Your task to perform on an android device: Open calendar and show me the third week of next month Image 0: 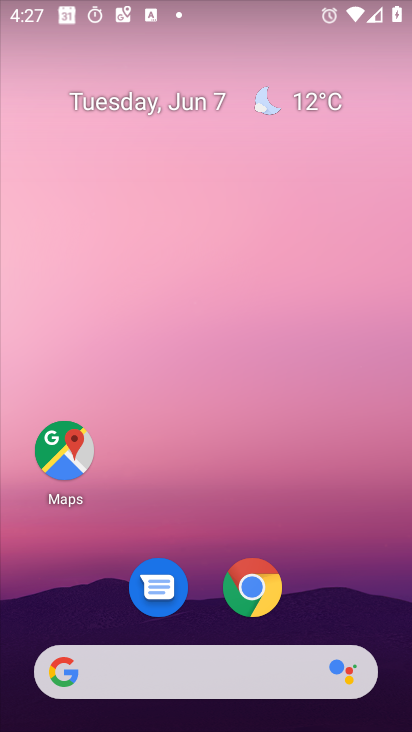
Step 0: drag from (240, 668) to (252, 117)
Your task to perform on an android device: Open calendar and show me the third week of next month Image 1: 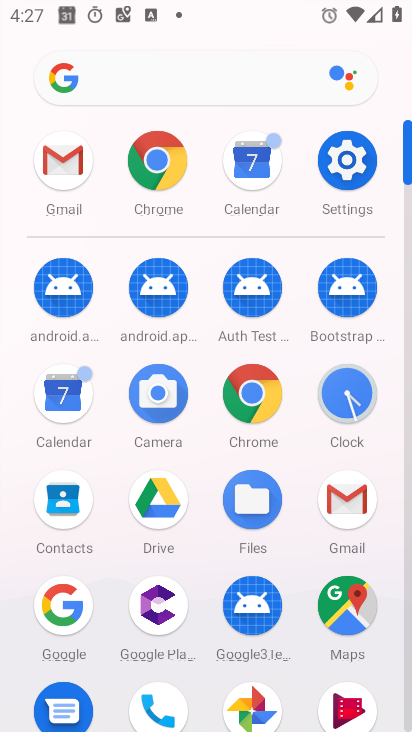
Step 1: click (67, 403)
Your task to perform on an android device: Open calendar and show me the third week of next month Image 2: 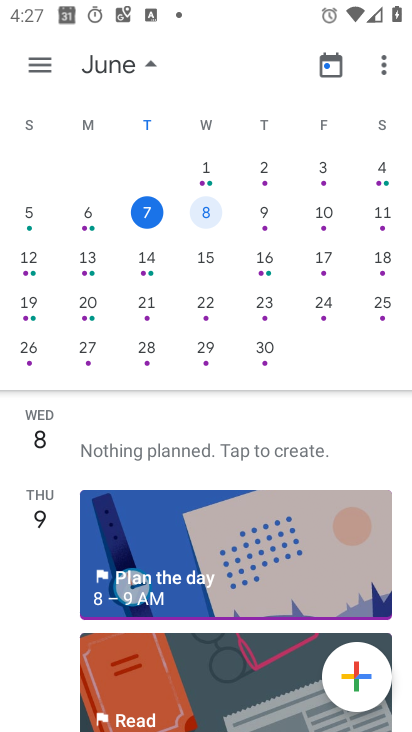
Step 2: drag from (338, 279) to (0, 304)
Your task to perform on an android device: Open calendar and show me the third week of next month Image 3: 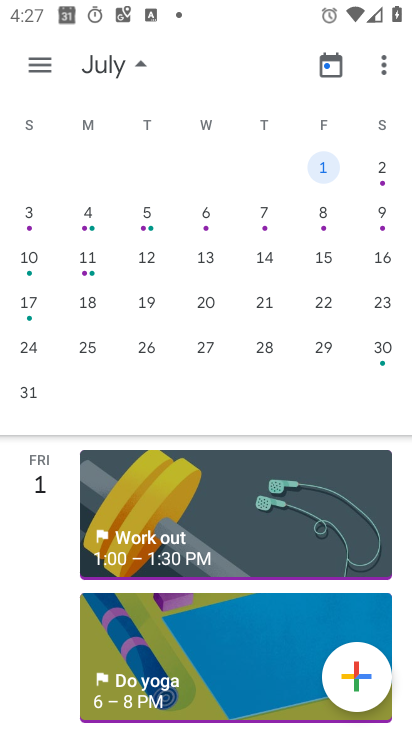
Step 3: click (39, 294)
Your task to perform on an android device: Open calendar and show me the third week of next month Image 4: 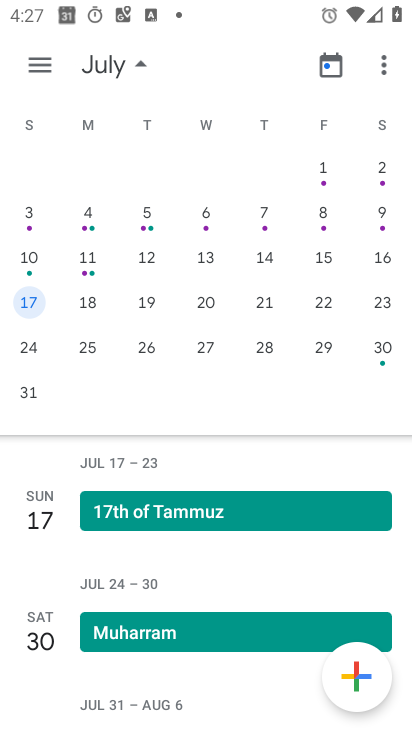
Step 4: task complete